Your task to perform on an android device: Show me popular videos on Youtube Image 0: 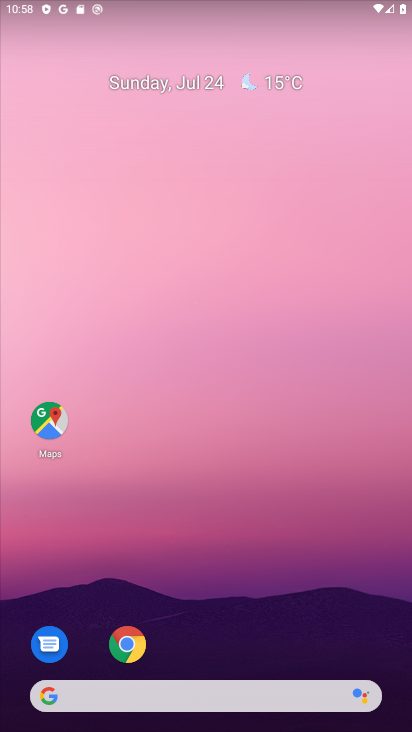
Step 0: drag from (208, 704) to (197, 68)
Your task to perform on an android device: Show me popular videos on Youtube Image 1: 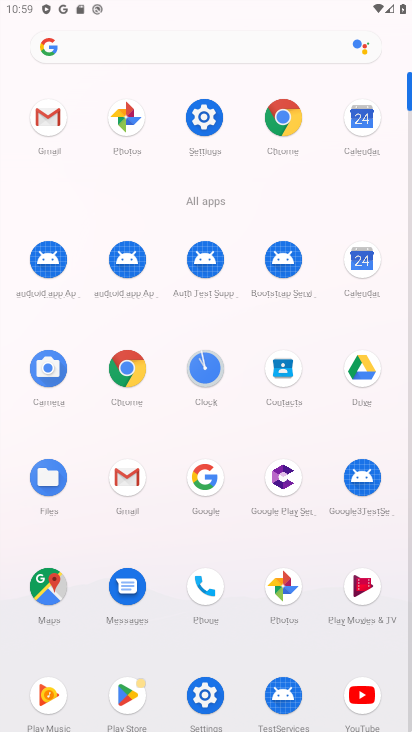
Step 1: click (363, 680)
Your task to perform on an android device: Show me popular videos on Youtube Image 2: 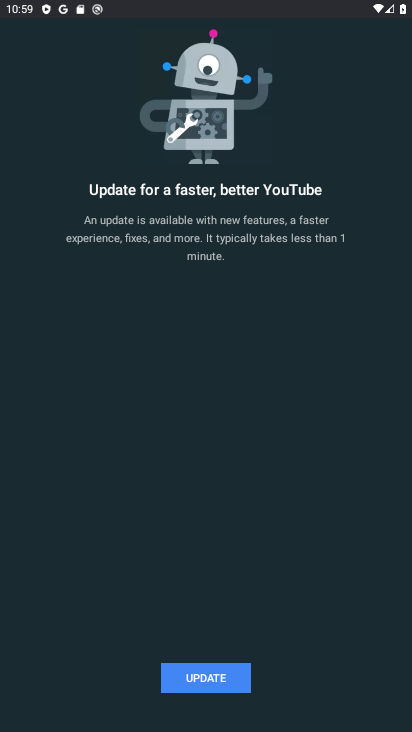
Step 2: task complete